Your task to perform on an android device: find which apps use the phone's location Image 0: 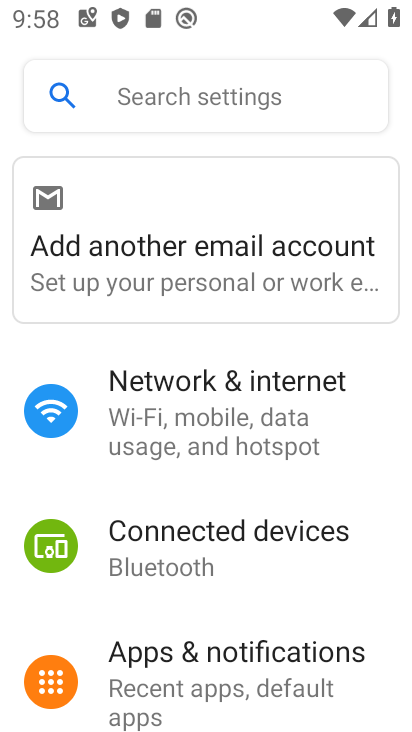
Step 0: drag from (333, 714) to (307, 351)
Your task to perform on an android device: find which apps use the phone's location Image 1: 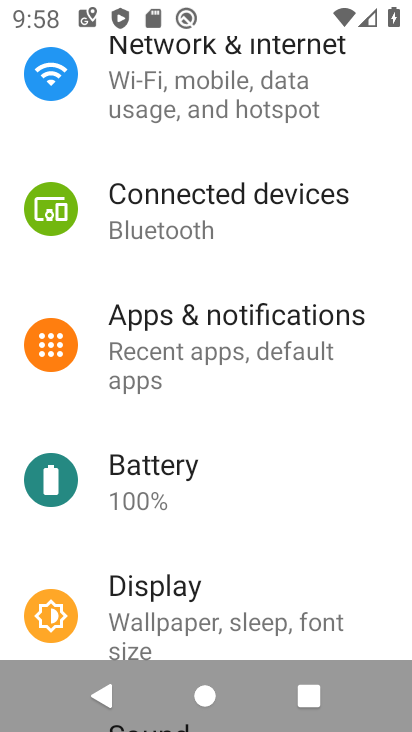
Step 1: drag from (349, 568) to (286, 125)
Your task to perform on an android device: find which apps use the phone's location Image 2: 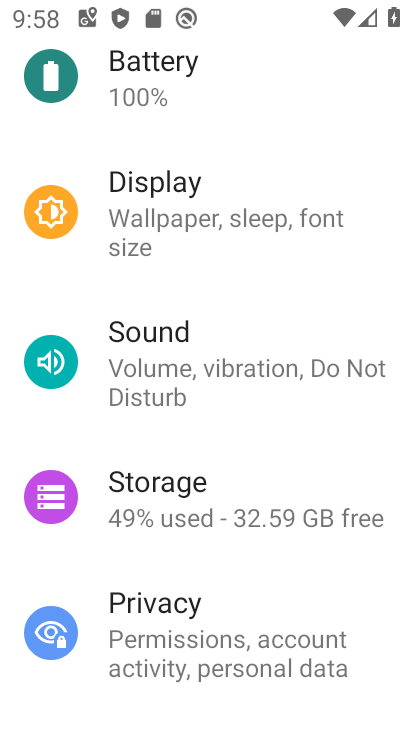
Step 2: drag from (271, 469) to (215, 148)
Your task to perform on an android device: find which apps use the phone's location Image 3: 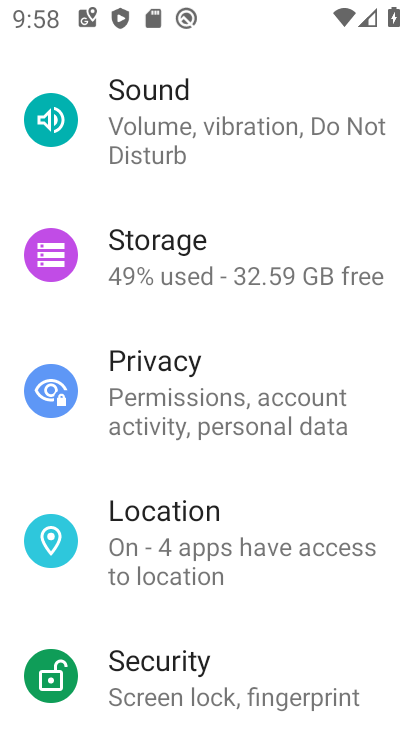
Step 3: click (249, 551)
Your task to perform on an android device: find which apps use the phone's location Image 4: 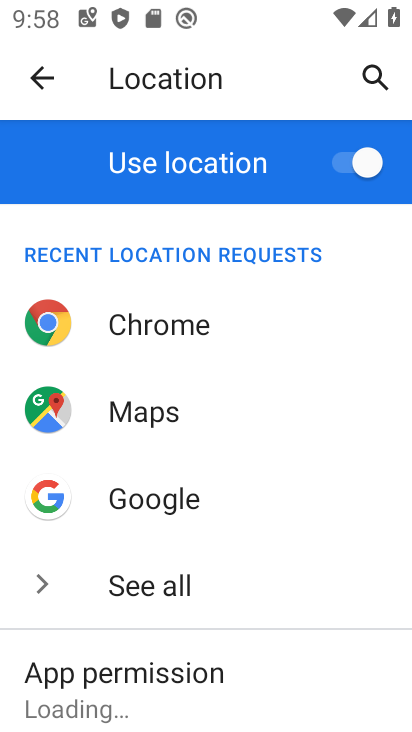
Step 4: drag from (258, 622) to (206, 313)
Your task to perform on an android device: find which apps use the phone's location Image 5: 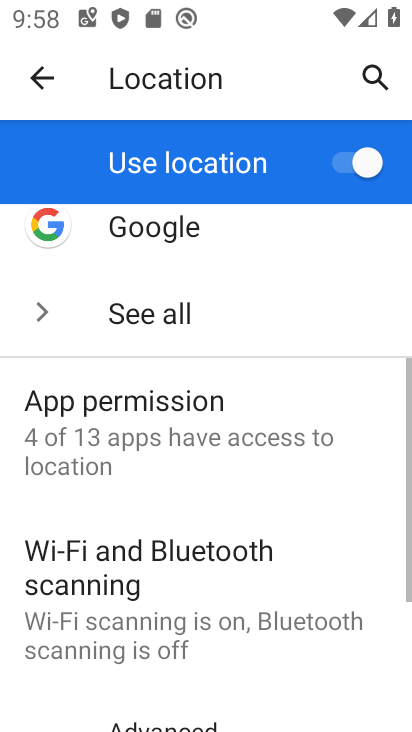
Step 5: click (183, 389)
Your task to perform on an android device: find which apps use the phone's location Image 6: 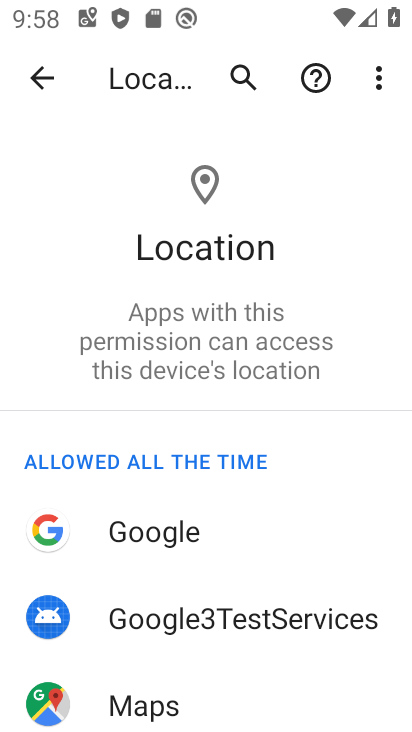
Step 6: task complete